Your task to perform on an android device: Is it going to rain this weekend? Image 0: 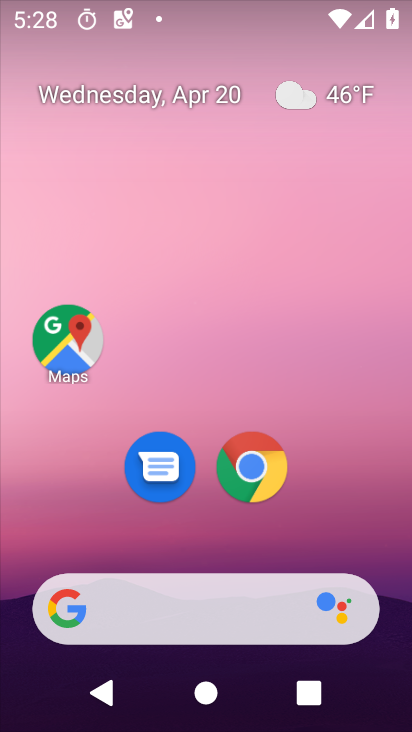
Step 0: click (344, 89)
Your task to perform on an android device: Is it going to rain this weekend? Image 1: 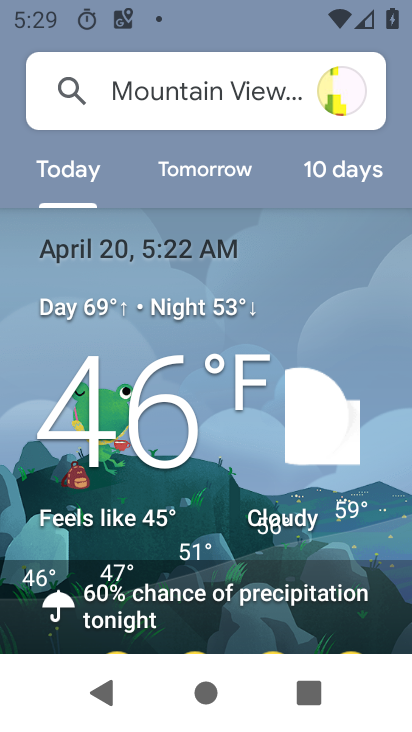
Step 1: click (349, 170)
Your task to perform on an android device: Is it going to rain this weekend? Image 2: 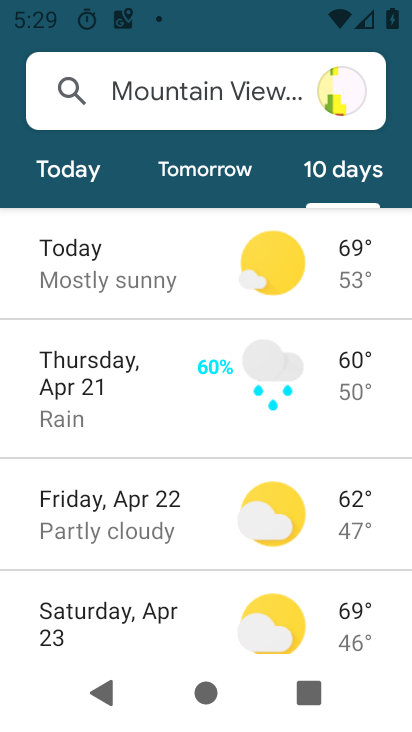
Step 2: task complete